Your task to perform on an android device: Go to Wikipedia Image 0: 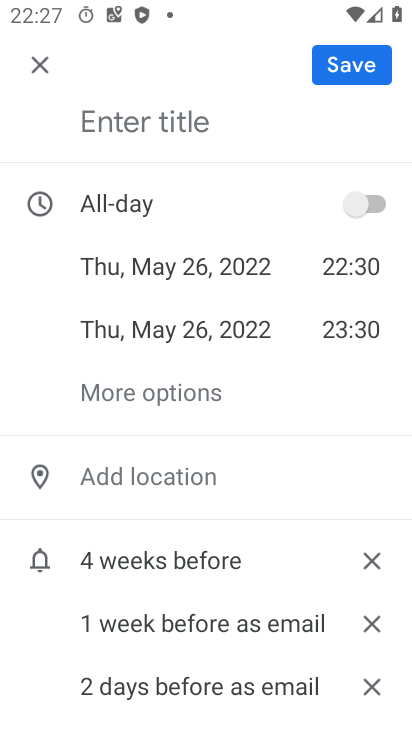
Step 0: press back button
Your task to perform on an android device: Go to Wikipedia Image 1: 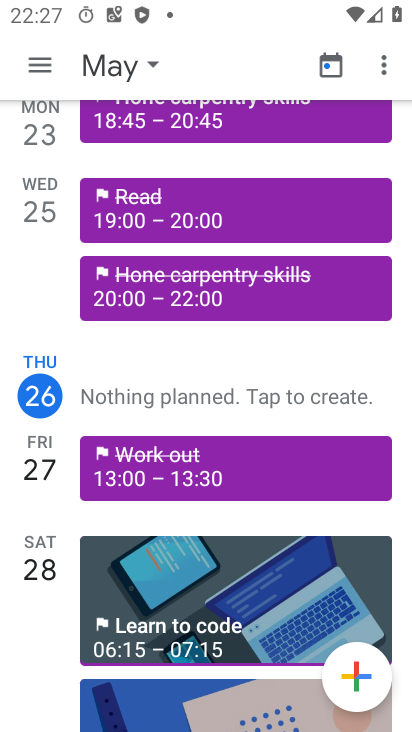
Step 1: press home button
Your task to perform on an android device: Go to Wikipedia Image 2: 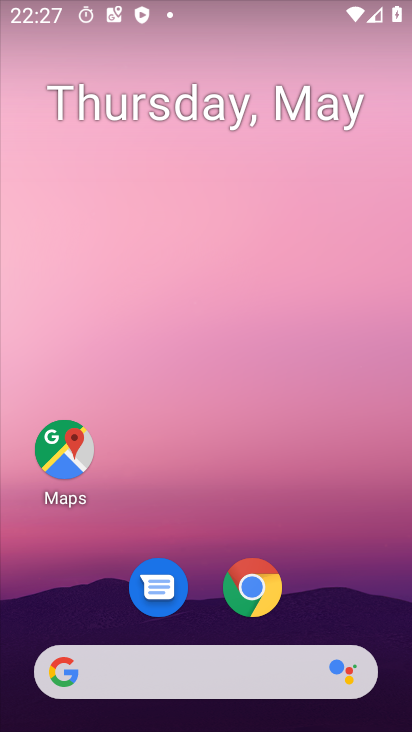
Step 2: click (264, 581)
Your task to perform on an android device: Go to Wikipedia Image 3: 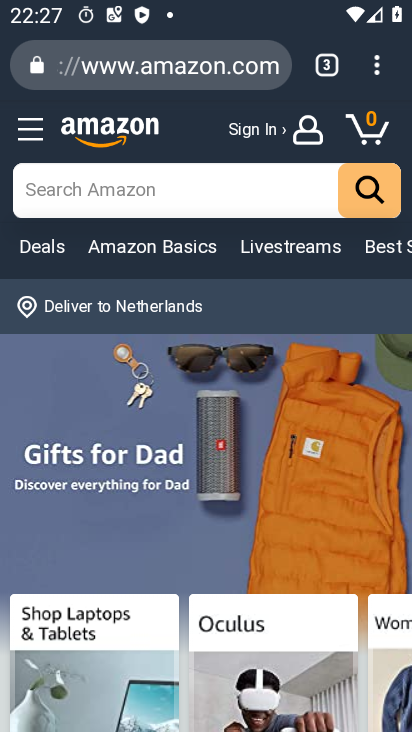
Step 3: click (118, 80)
Your task to perform on an android device: Go to Wikipedia Image 4: 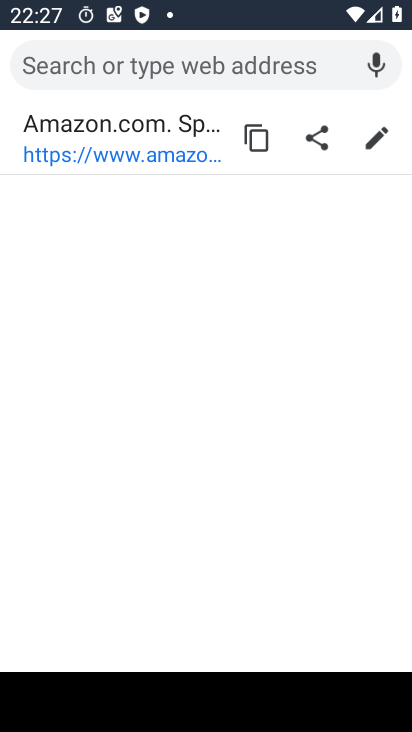
Step 4: type "wikipedia"
Your task to perform on an android device: Go to Wikipedia Image 5: 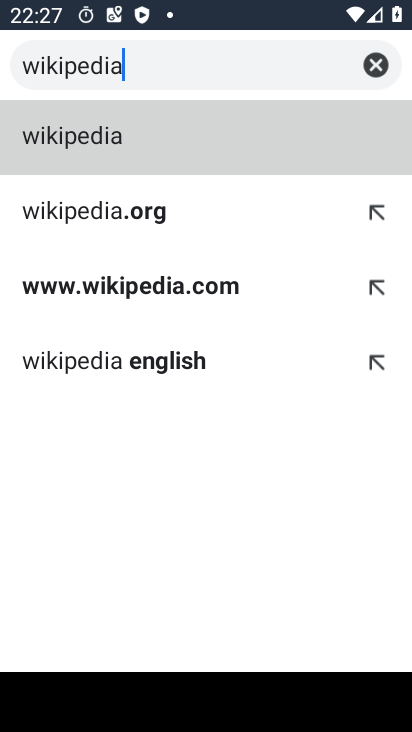
Step 5: click (92, 144)
Your task to perform on an android device: Go to Wikipedia Image 6: 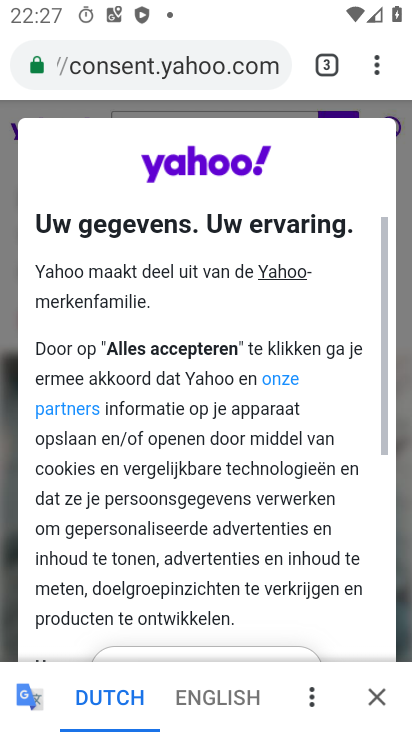
Step 6: click (111, 74)
Your task to perform on an android device: Go to Wikipedia Image 7: 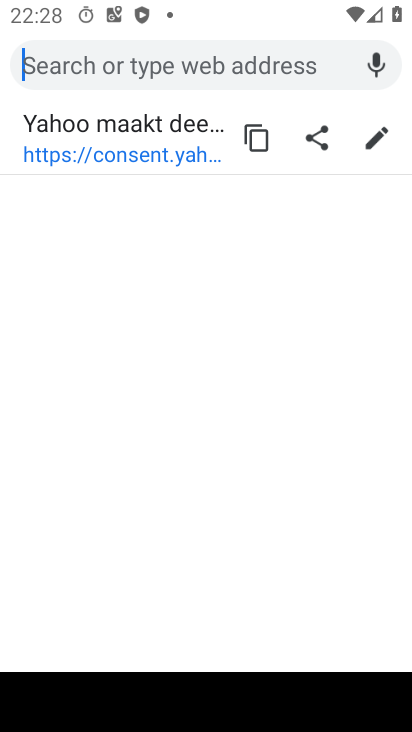
Step 7: type "wikipedia"
Your task to perform on an android device: Go to Wikipedia Image 8: 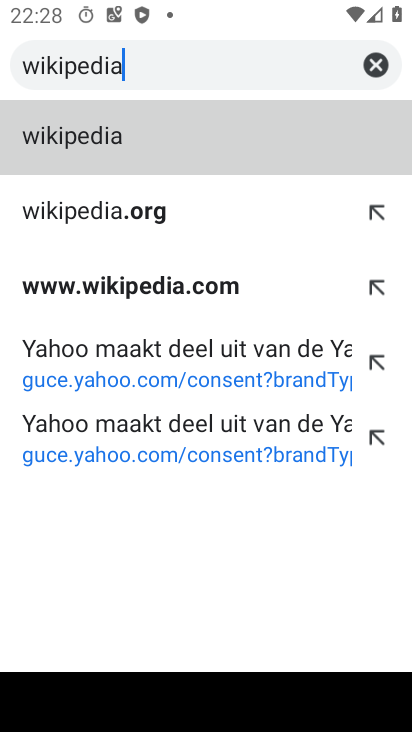
Step 8: click (116, 223)
Your task to perform on an android device: Go to Wikipedia Image 9: 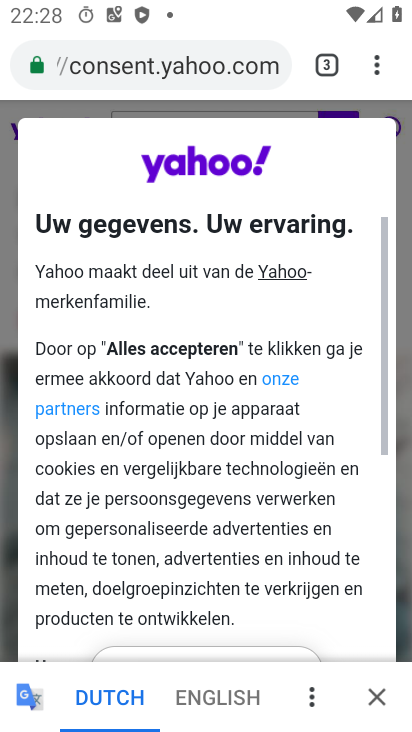
Step 9: drag from (183, 506) to (183, 187)
Your task to perform on an android device: Go to Wikipedia Image 10: 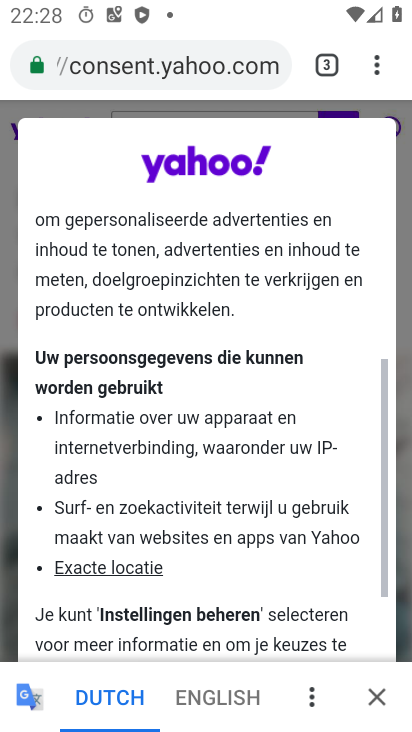
Step 10: drag from (199, 547) to (200, 196)
Your task to perform on an android device: Go to Wikipedia Image 11: 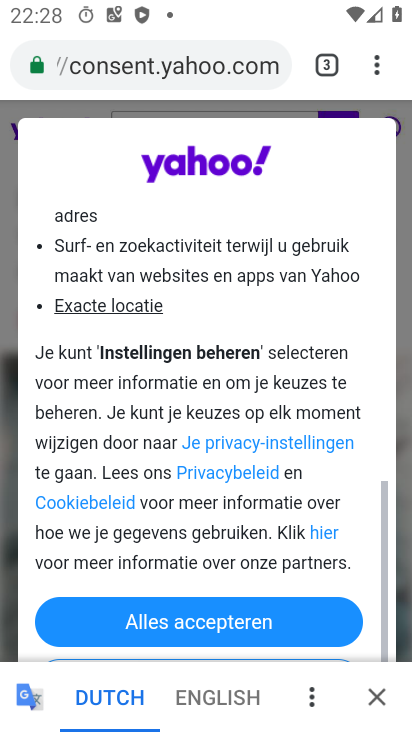
Step 11: click (207, 610)
Your task to perform on an android device: Go to Wikipedia Image 12: 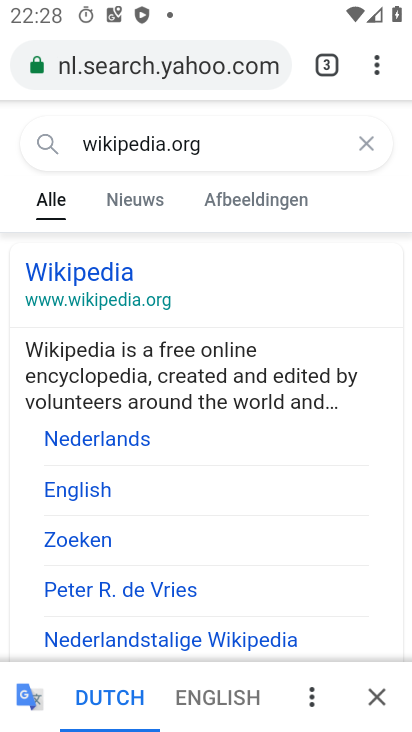
Step 12: click (75, 315)
Your task to perform on an android device: Go to Wikipedia Image 13: 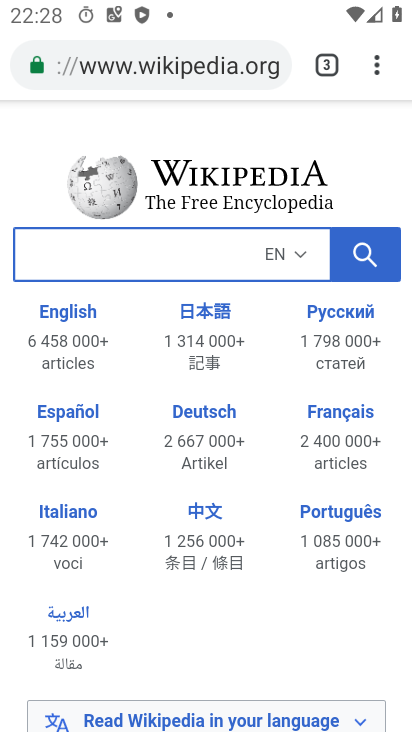
Step 13: task complete